Your task to perform on an android device: Open calendar and show me the second week of next month Image 0: 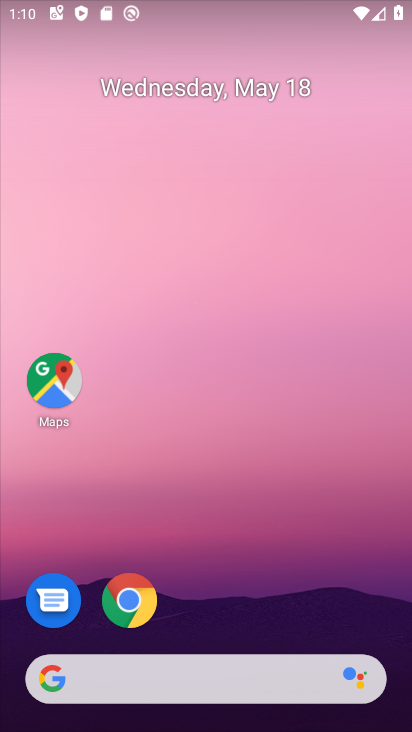
Step 0: drag from (241, 629) to (387, 150)
Your task to perform on an android device: Open calendar and show me the second week of next month Image 1: 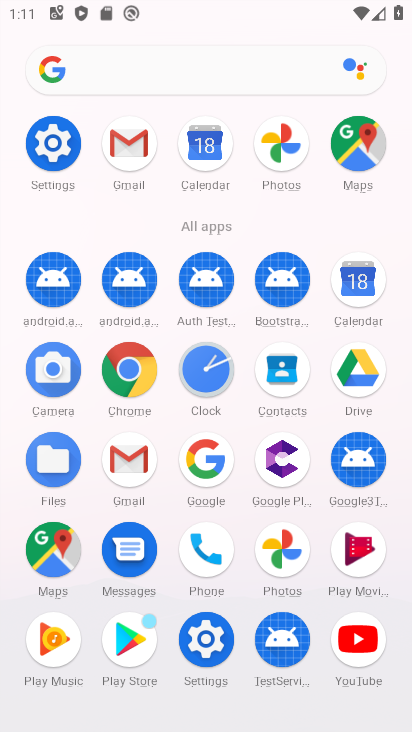
Step 1: click (360, 278)
Your task to perform on an android device: Open calendar and show me the second week of next month Image 2: 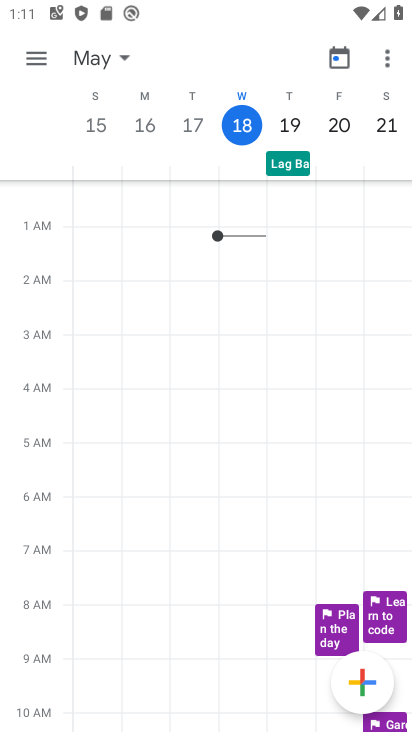
Step 2: click (342, 58)
Your task to perform on an android device: Open calendar and show me the second week of next month Image 3: 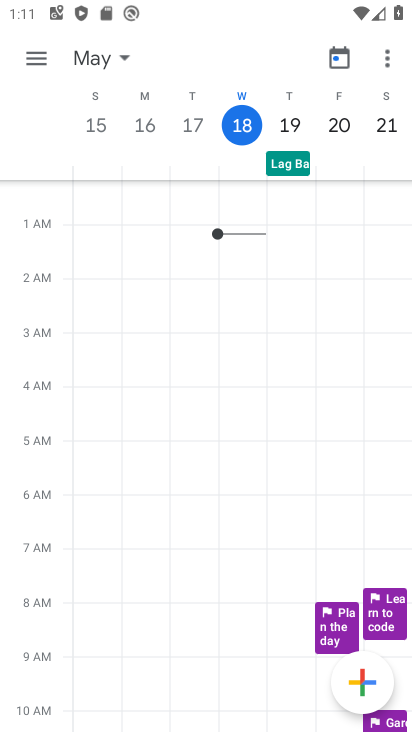
Step 3: click (122, 55)
Your task to perform on an android device: Open calendar and show me the second week of next month Image 4: 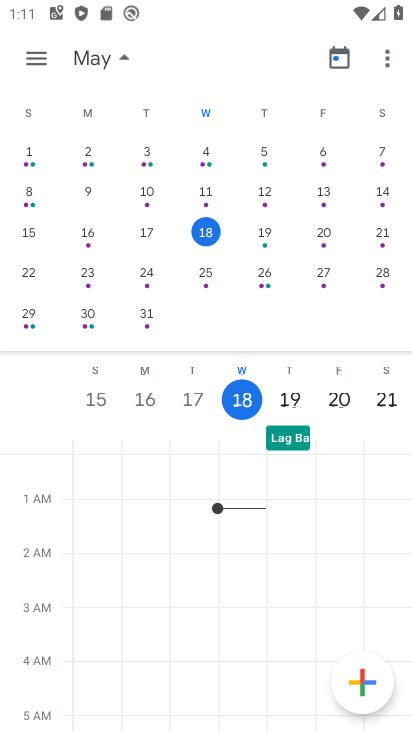
Step 4: drag from (360, 235) to (1, 264)
Your task to perform on an android device: Open calendar and show me the second week of next month Image 5: 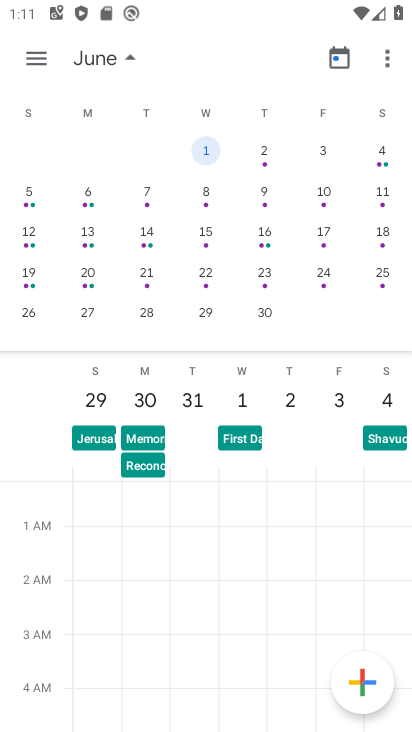
Step 5: click (94, 225)
Your task to perform on an android device: Open calendar and show me the second week of next month Image 6: 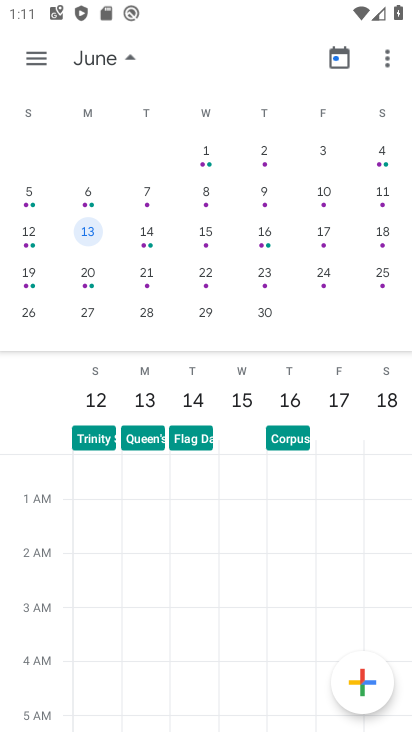
Step 6: click (23, 57)
Your task to perform on an android device: Open calendar and show me the second week of next month Image 7: 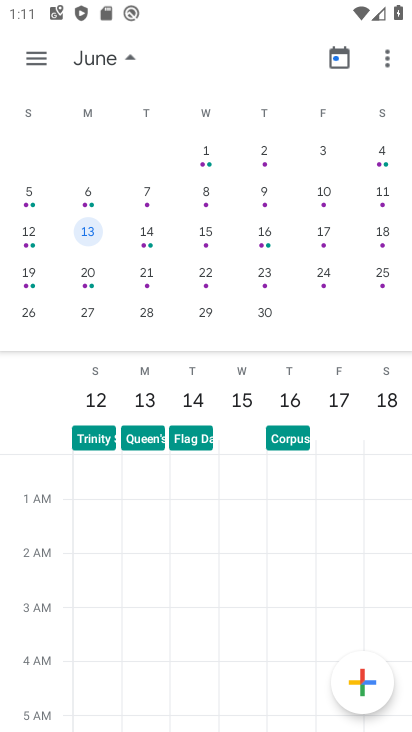
Step 7: click (47, 59)
Your task to perform on an android device: Open calendar and show me the second week of next month Image 8: 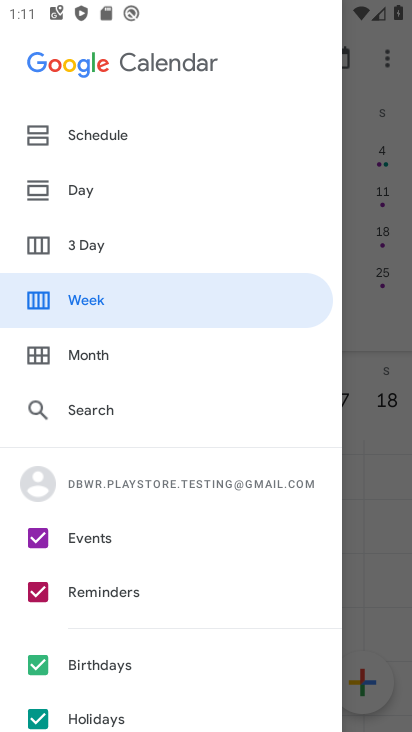
Step 8: click (86, 297)
Your task to perform on an android device: Open calendar and show me the second week of next month Image 9: 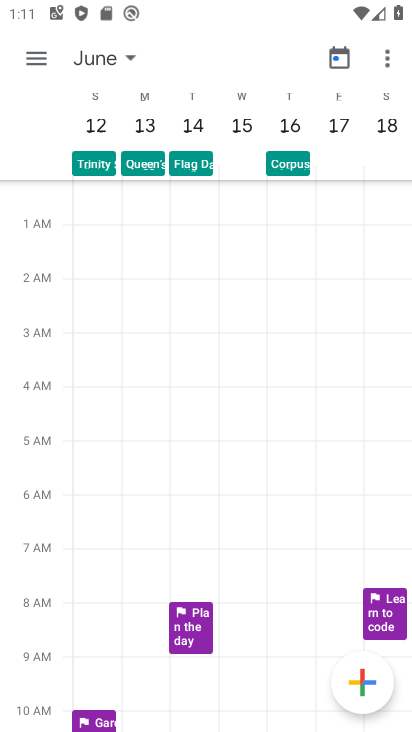
Step 9: task complete